Your task to perform on an android device: Open ESPN.com Image 0: 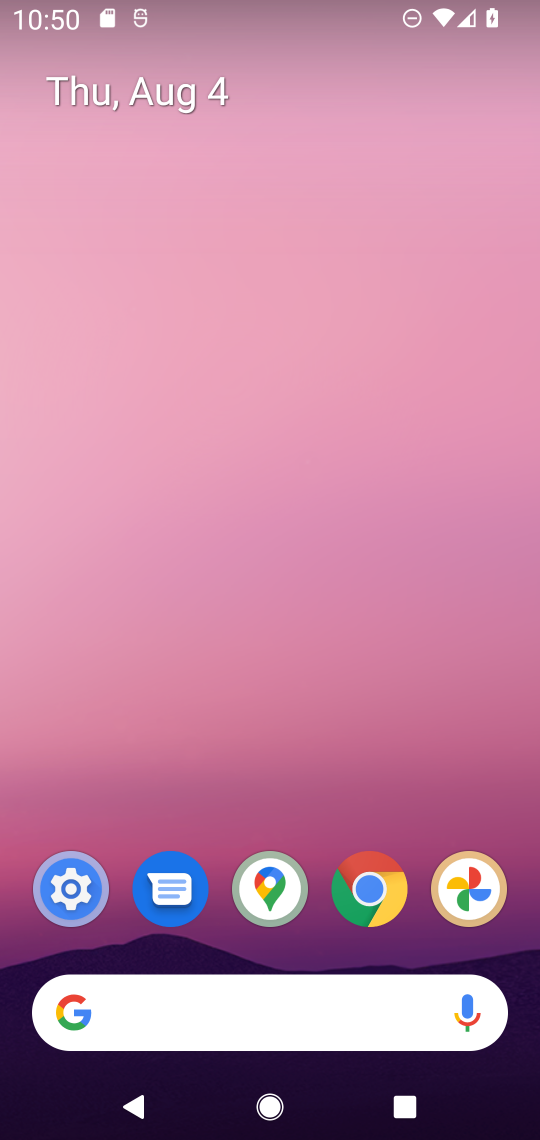
Step 0: drag from (300, 802) to (381, 272)
Your task to perform on an android device: Open ESPN.com Image 1: 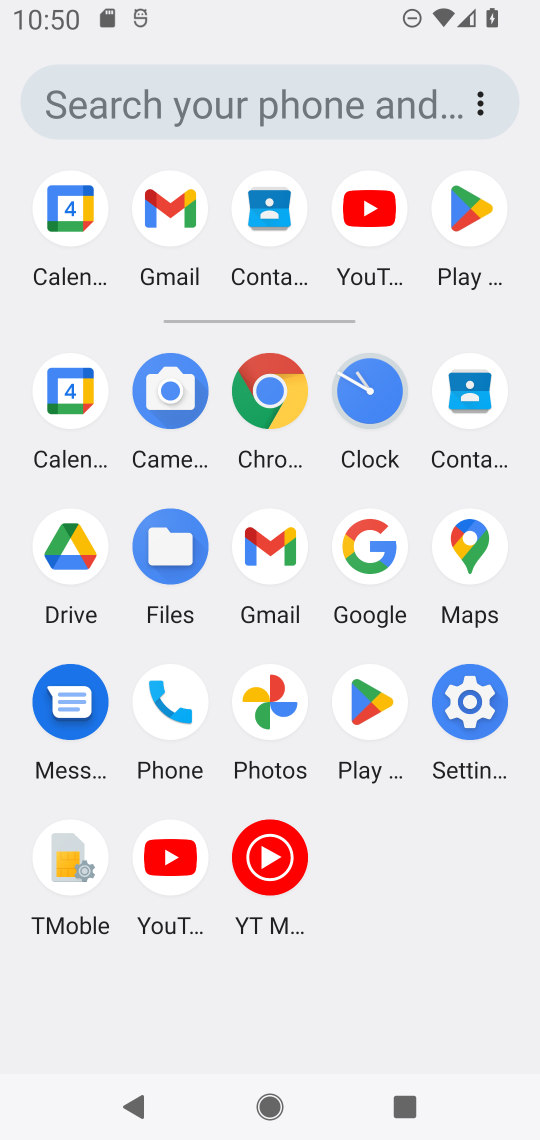
Step 1: click (265, 389)
Your task to perform on an android device: Open ESPN.com Image 2: 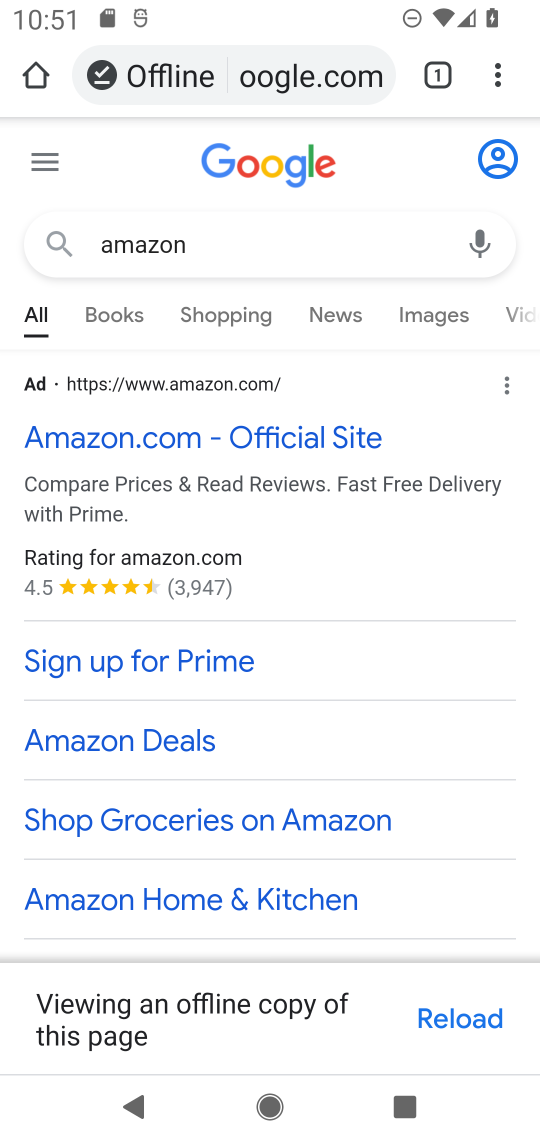
Step 2: click (312, 71)
Your task to perform on an android device: Open ESPN.com Image 3: 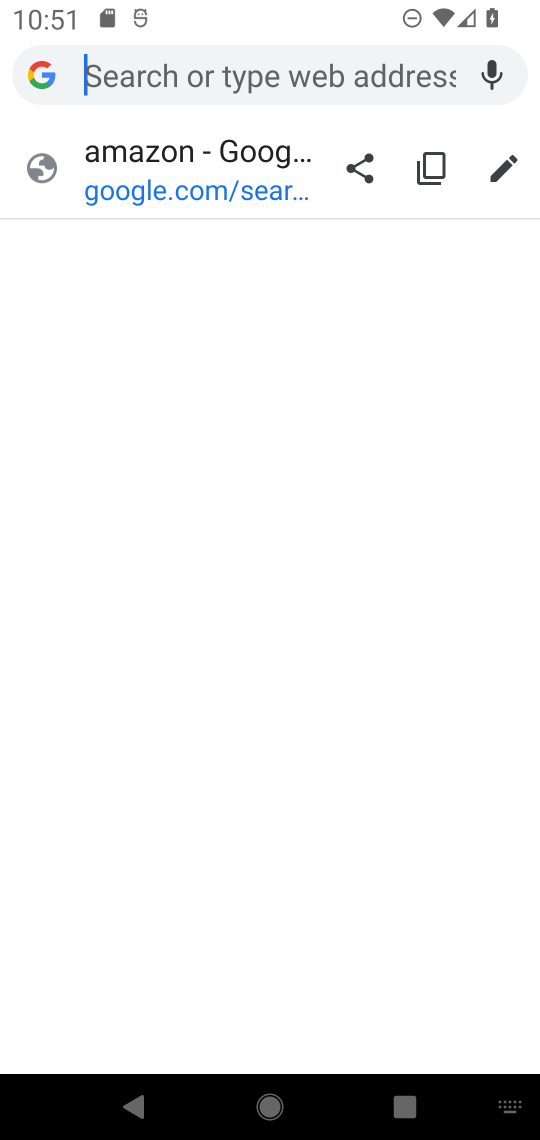
Step 3: type "espn.com"
Your task to perform on an android device: Open ESPN.com Image 4: 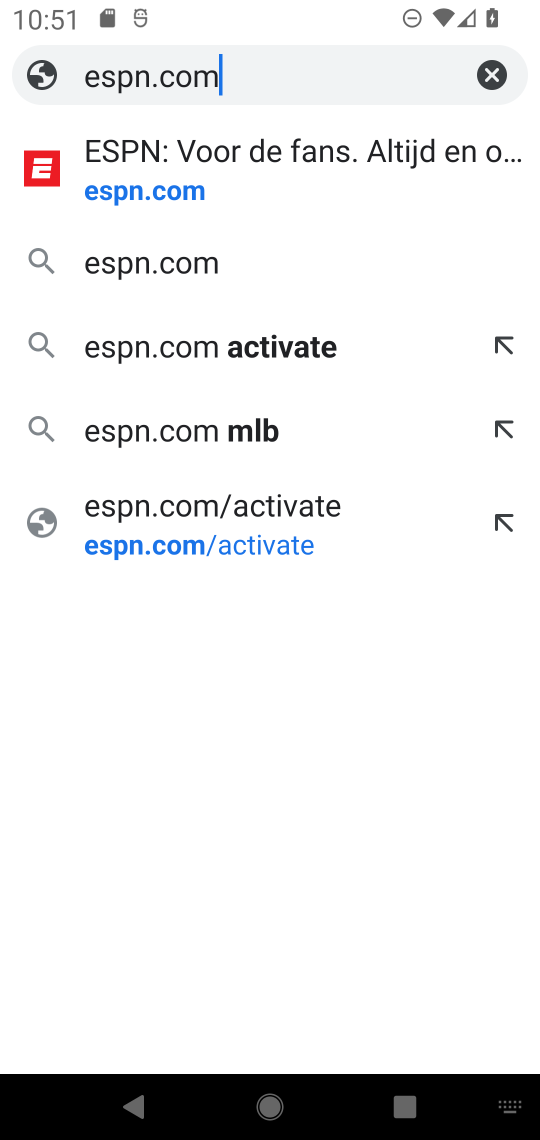
Step 4: click (315, 170)
Your task to perform on an android device: Open ESPN.com Image 5: 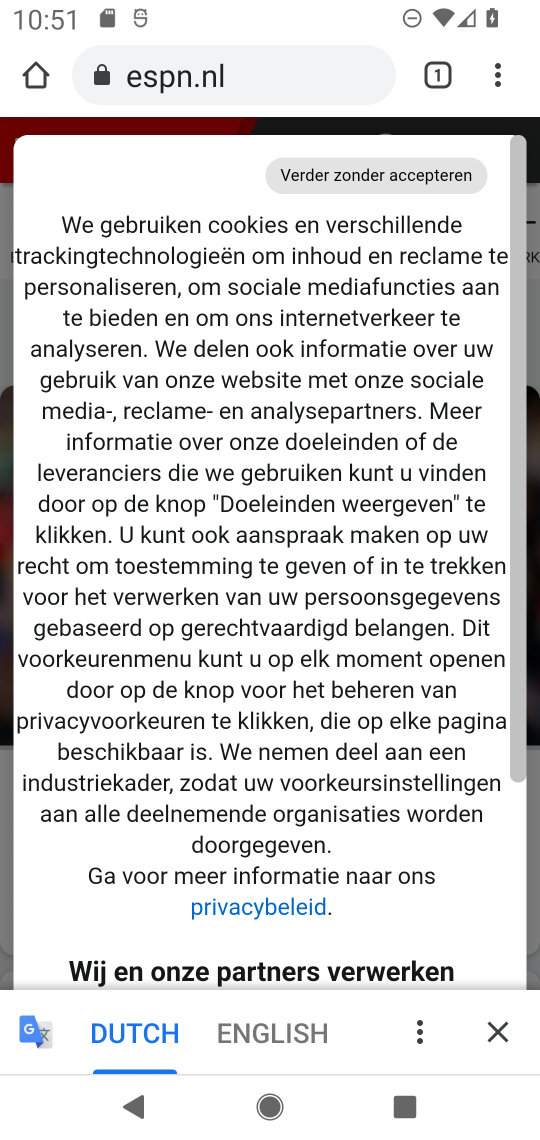
Step 5: task complete